Your task to perform on an android device: Go to wifi settings Image 0: 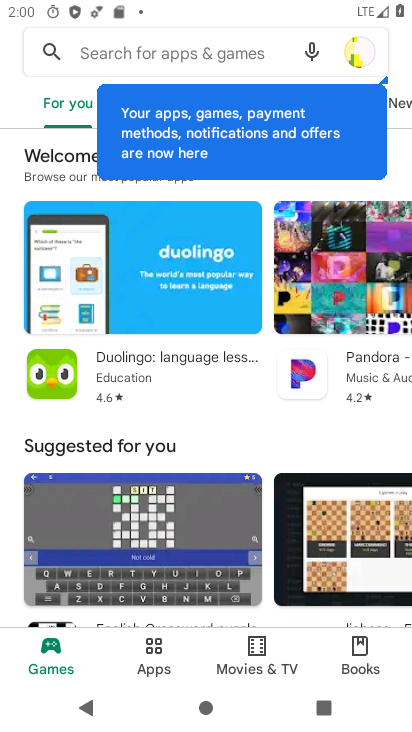
Step 0: press home button
Your task to perform on an android device: Go to wifi settings Image 1: 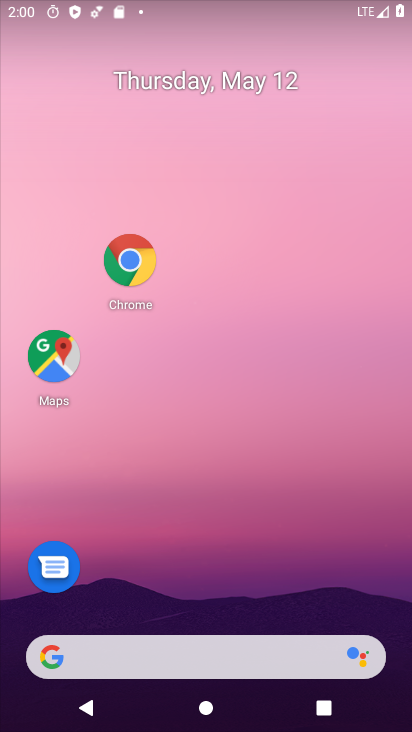
Step 1: drag from (242, 591) to (230, 292)
Your task to perform on an android device: Go to wifi settings Image 2: 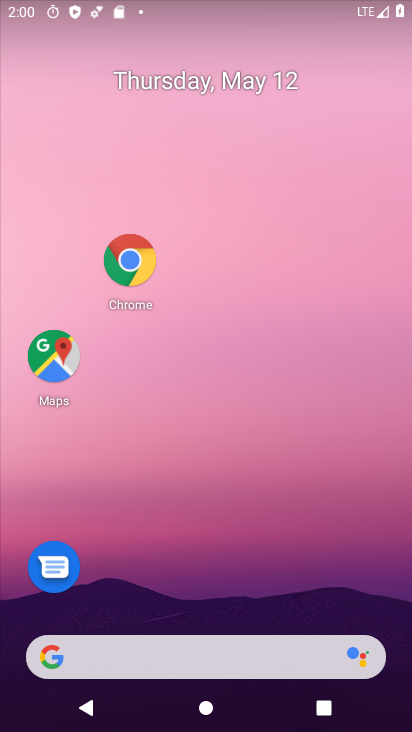
Step 2: drag from (172, 599) to (172, 225)
Your task to perform on an android device: Go to wifi settings Image 3: 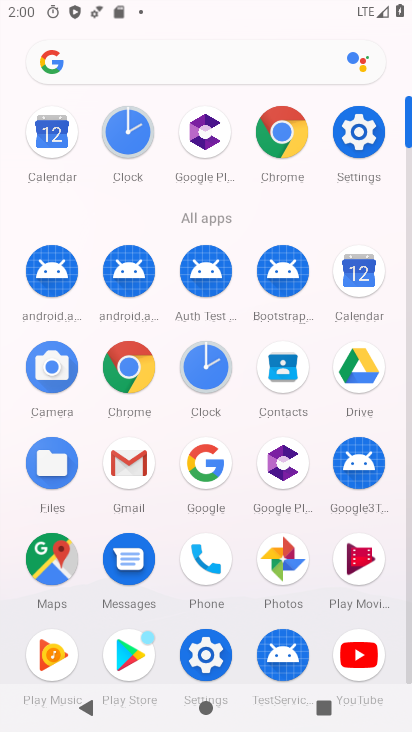
Step 3: click (350, 142)
Your task to perform on an android device: Go to wifi settings Image 4: 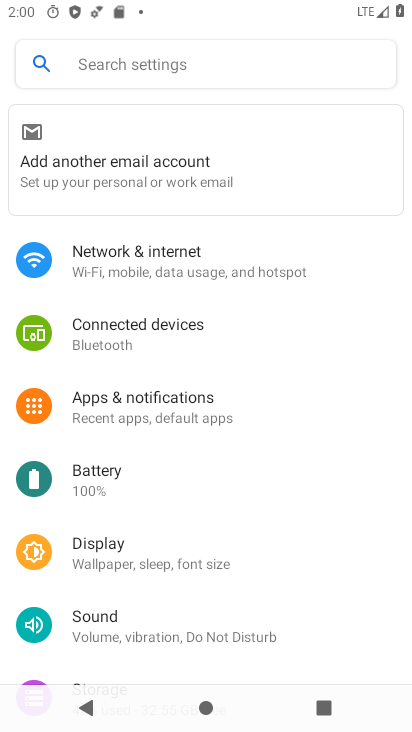
Step 4: click (148, 265)
Your task to perform on an android device: Go to wifi settings Image 5: 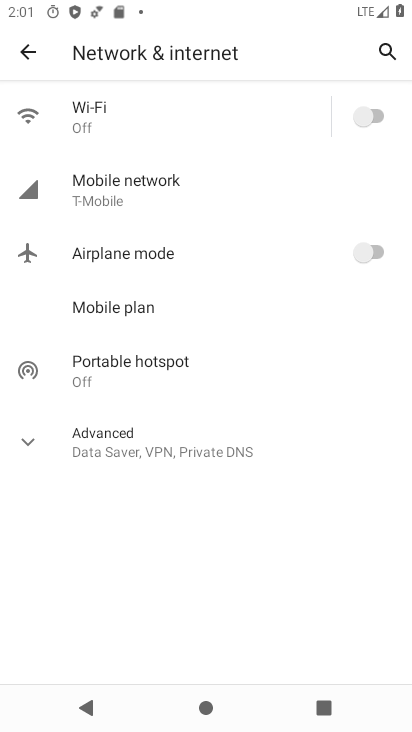
Step 5: click (106, 111)
Your task to perform on an android device: Go to wifi settings Image 6: 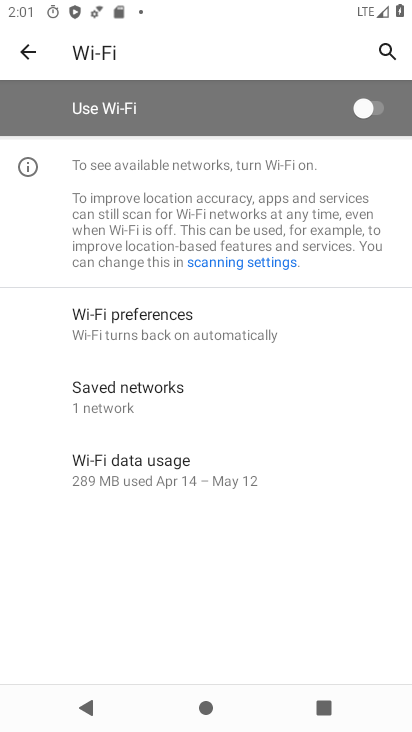
Step 6: click (374, 105)
Your task to perform on an android device: Go to wifi settings Image 7: 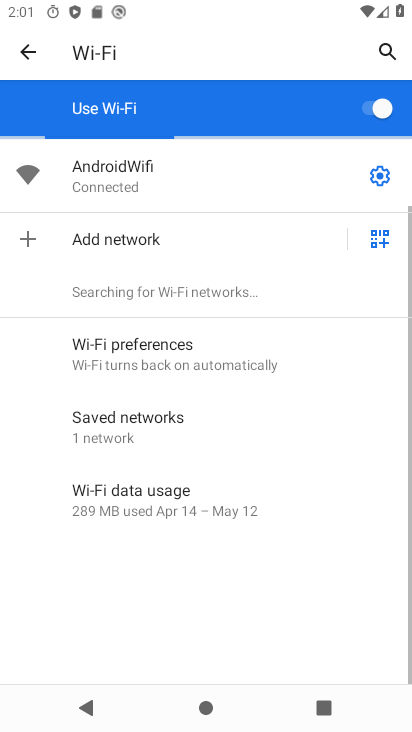
Step 7: click (374, 185)
Your task to perform on an android device: Go to wifi settings Image 8: 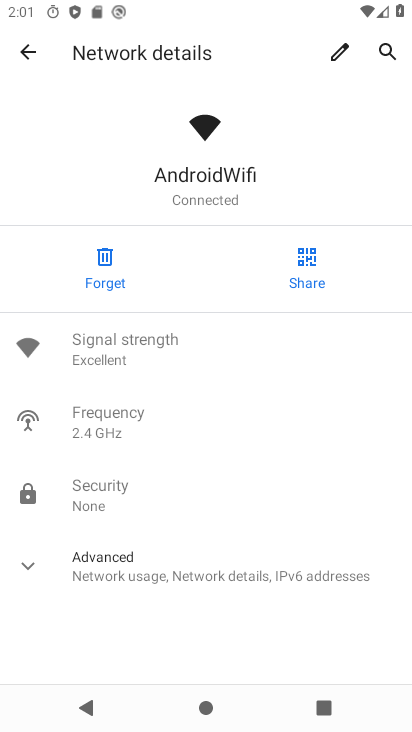
Step 8: click (138, 571)
Your task to perform on an android device: Go to wifi settings Image 9: 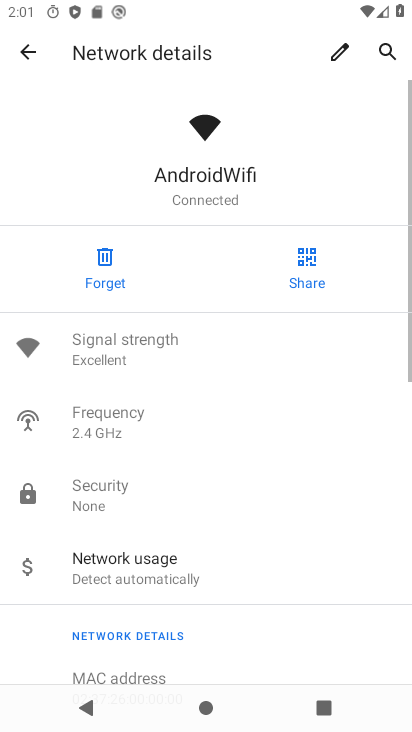
Step 9: task complete